Your task to perform on an android device: delete browsing data in the chrome app Image 0: 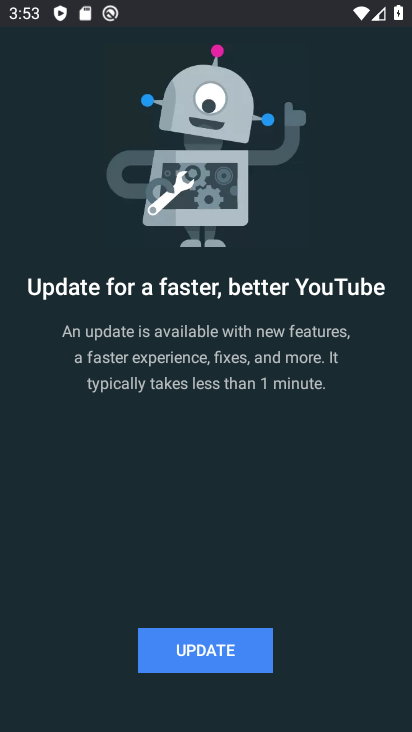
Step 0: press home button
Your task to perform on an android device: delete browsing data in the chrome app Image 1: 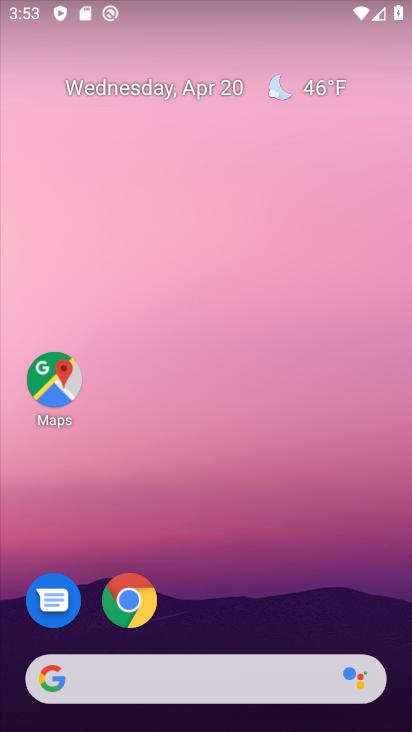
Step 1: click (134, 596)
Your task to perform on an android device: delete browsing data in the chrome app Image 2: 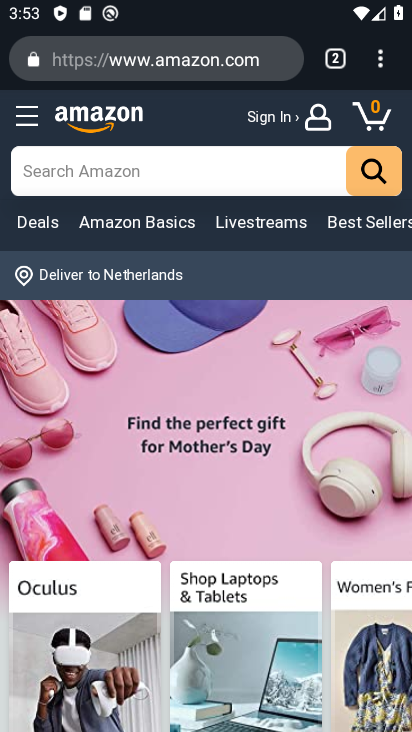
Step 2: click (370, 64)
Your task to perform on an android device: delete browsing data in the chrome app Image 3: 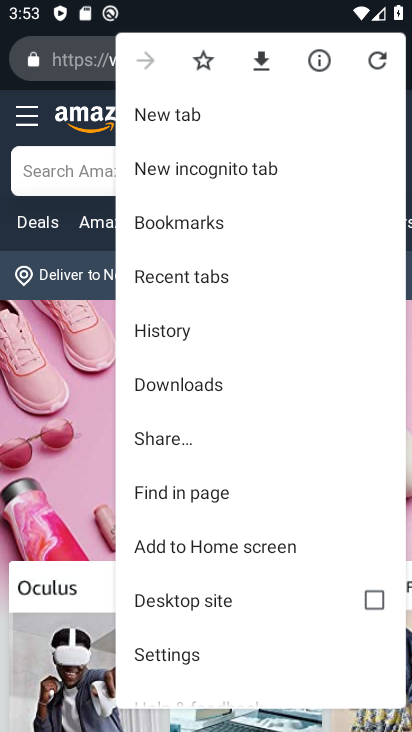
Step 3: click (181, 327)
Your task to perform on an android device: delete browsing data in the chrome app Image 4: 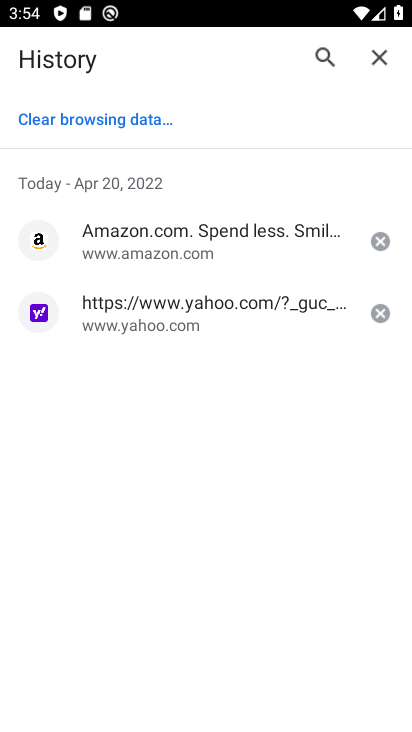
Step 4: click (97, 121)
Your task to perform on an android device: delete browsing data in the chrome app Image 5: 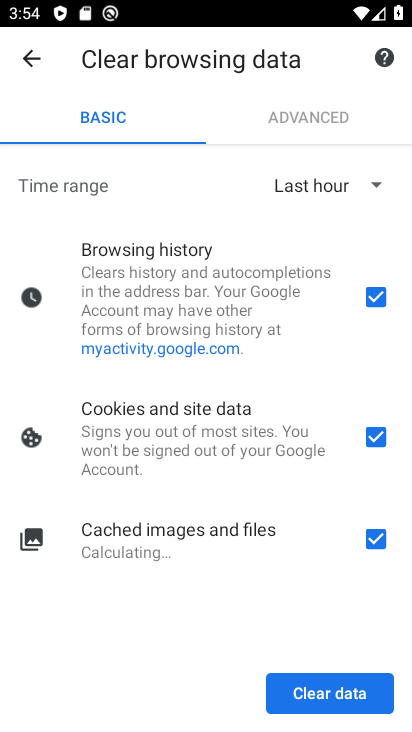
Step 5: click (97, 121)
Your task to perform on an android device: delete browsing data in the chrome app Image 6: 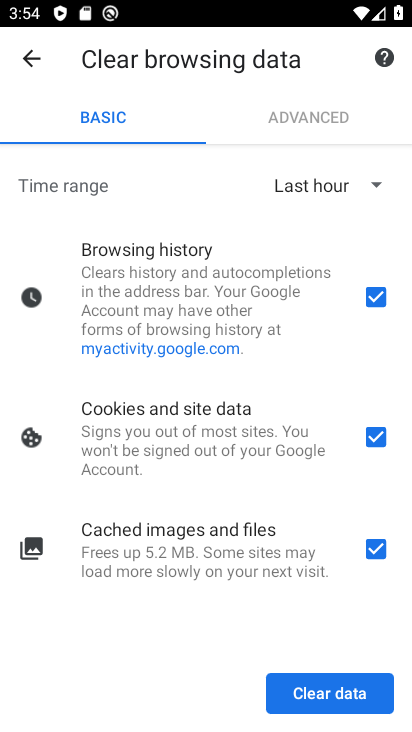
Step 6: click (362, 691)
Your task to perform on an android device: delete browsing data in the chrome app Image 7: 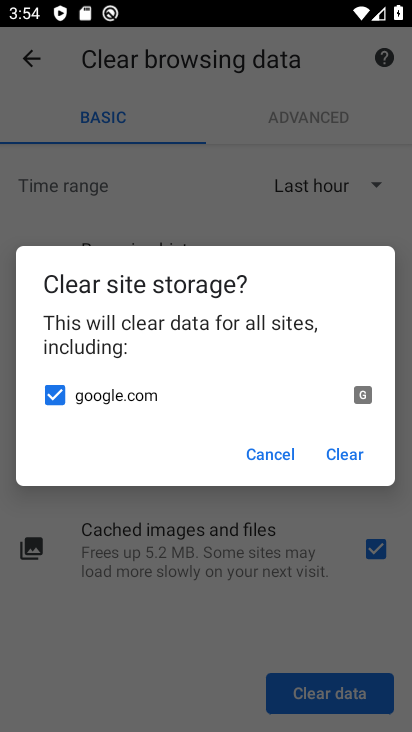
Step 7: click (347, 456)
Your task to perform on an android device: delete browsing data in the chrome app Image 8: 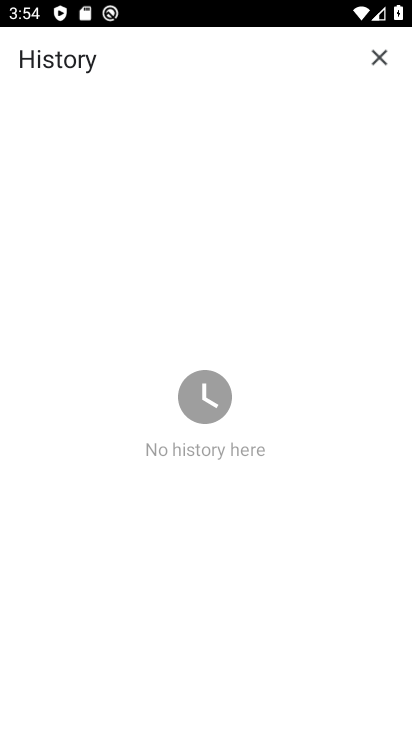
Step 8: task complete